Your task to perform on an android device: turn on data saver in the chrome app Image 0: 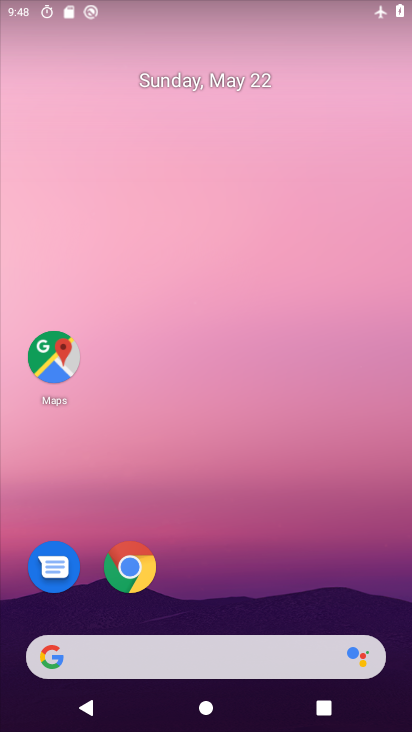
Step 0: click (126, 560)
Your task to perform on an android device: turn on data saver in the chrome app Image 1: 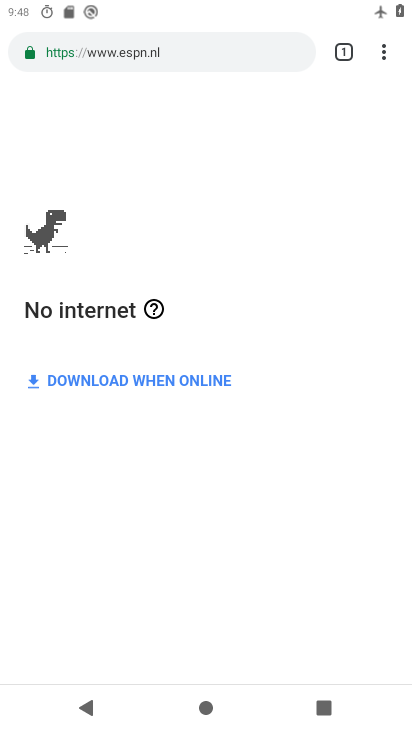
Step 1: click (388, 49)
Your task to perform on an android device: turn on data saver in the chrome app Image 2: 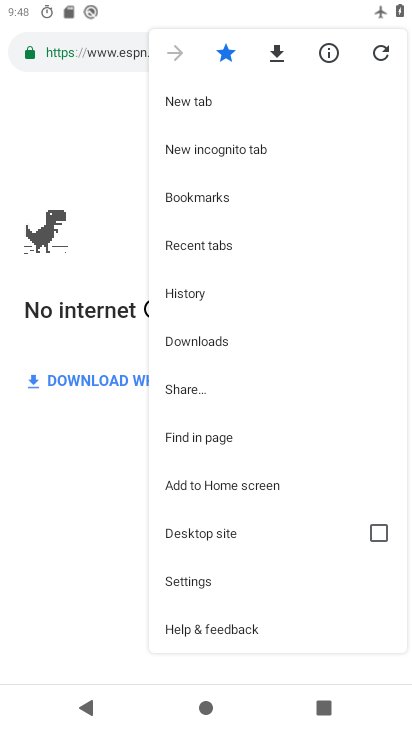
Step 2: click (214, 579)
Your task to perform on an android device: turn on data saver in the chrome app Image 3: 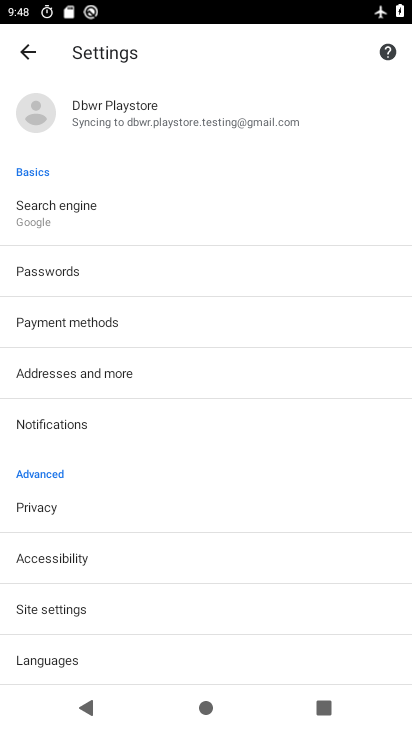
Step 3: drag from (110, 644) to (113, 218)
Your task to perform on an android device: turn on data saver in the chrome app Image 4: 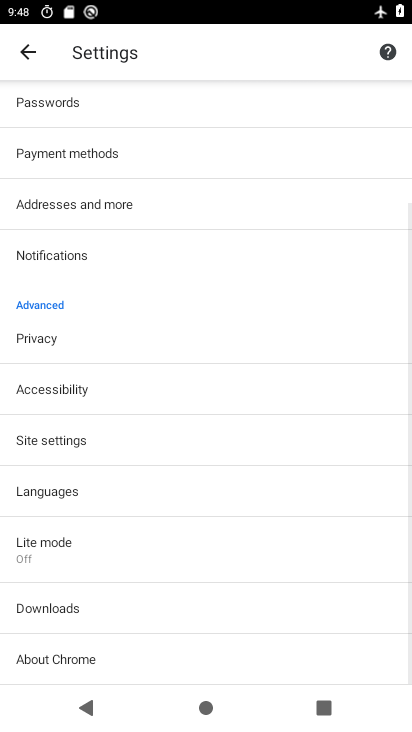
Step 4: click (39, 556)
Your task to perform on an android device: turn on data saver in the chrome app Image 5: 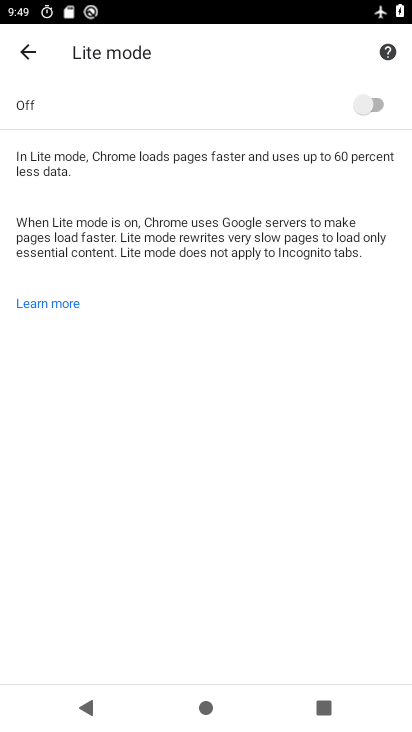
Step 5: click (374, 97)
Your task to perform on an android device: turn on data saver in the chrome app Image 6: 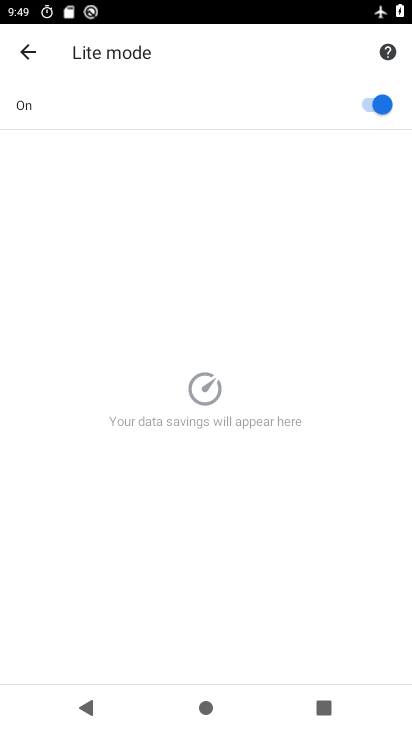
Step 6: task complete